Your task to perform on an android device: turn on improve location accuracy Image 0: 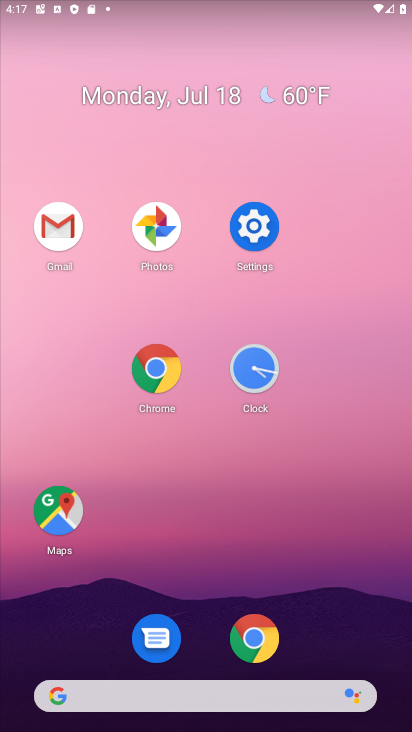
Step 0: click (242, 224)
Your task to perform on an android device: turn on improve location accuracy Image 1: 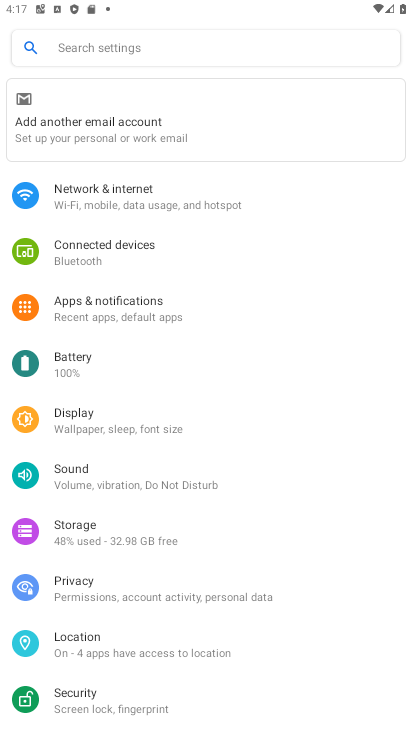
Step 1: click (147, 636)
Your task to perform on an android device: turn on improve location accuracy Image 2: 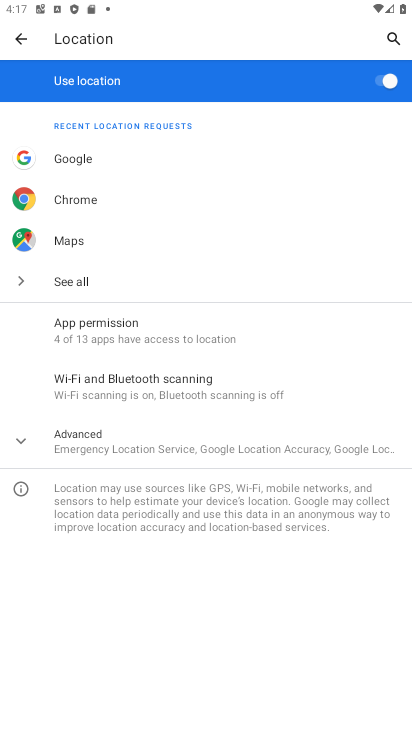
Step 2: click (109, 425)
Your task to perform on an android device: turn on improve location accuracy Image 3: 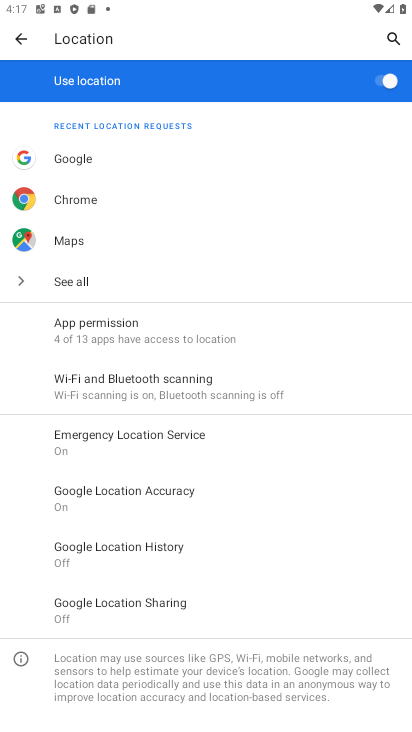
Step 3: click (162, 487)
Your task to perform on an android device: turn on improve location accuracy Image 4: 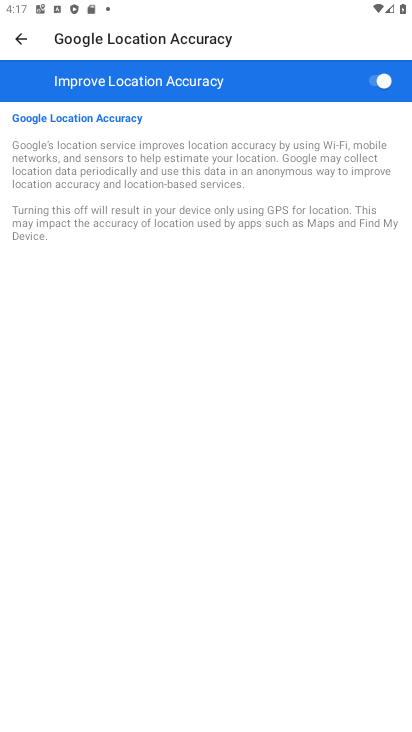
Step 4: task complete